Your task to perform on an android device: Open Chrome and go to settings Image 0: 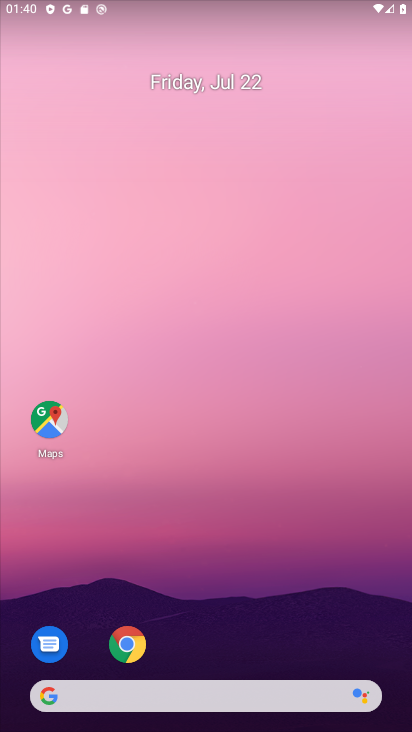
Step 0: drag from (197, 489) to (273, 213)
Your task to perform on an android device: Open Chrome and go to settings Image 1: 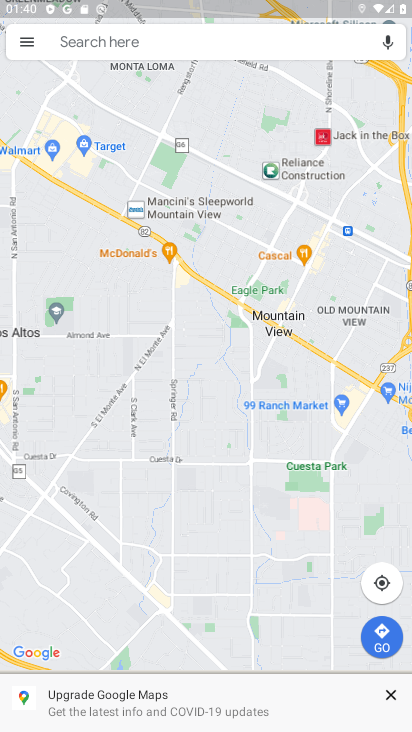
Step 1: press home button
Your task to perform on an android device: Open Chrome and go to settings Image 2: 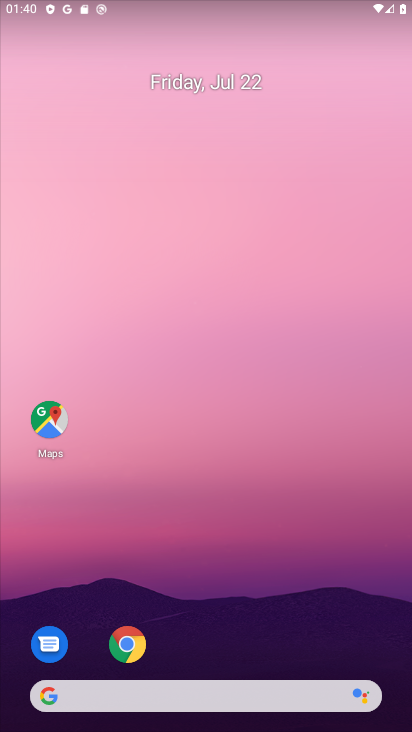
Step 2: click (129, 639)
Your task to perform on an android device: Open Chrome and go to settings Image 3: 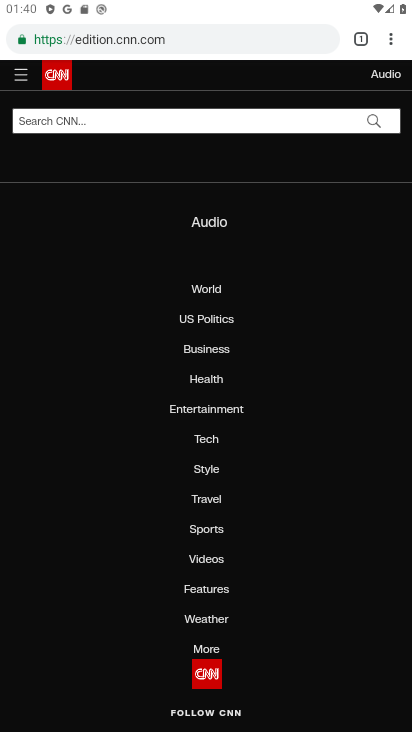
Step 3: click (389, 39)
Your task to perform on an android device: Open Chrome and go to settings Image 4: 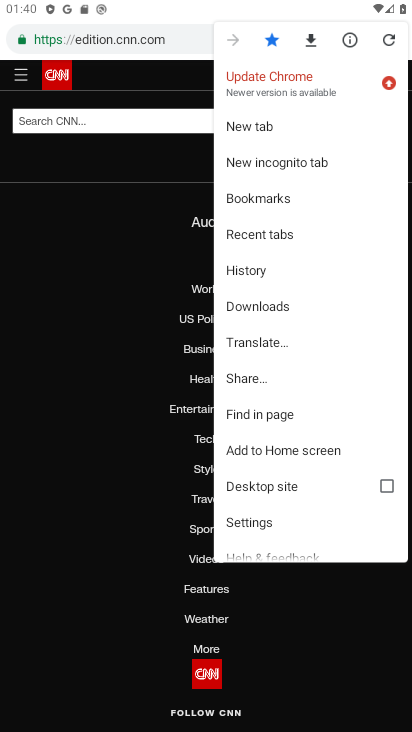
Step 4: click (282, 522)
Your task to perform on an android device: Open Chrome and go to settings Image 5: 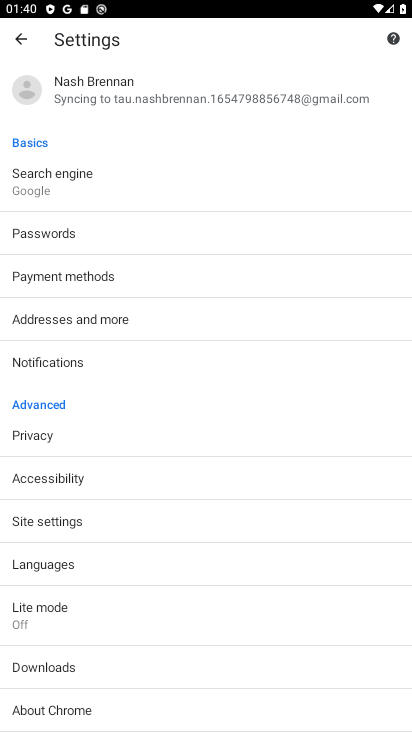
Step 5: task complete